Your task to perform on an android device: Turn off the flashlight Image 0: 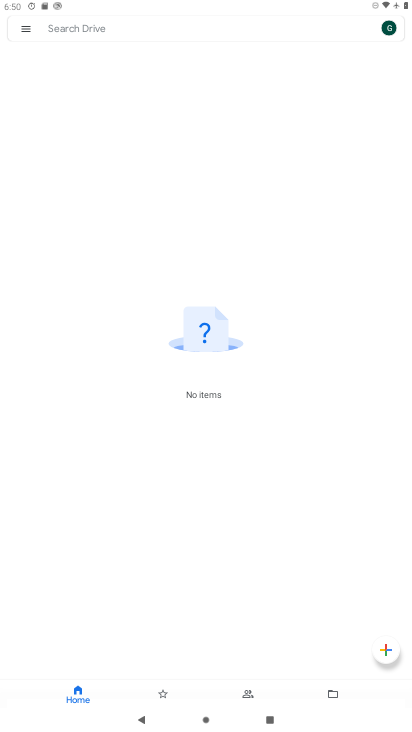
Step 0: press home button
Your task to perform on an android device: Turn off the flashlight Image 1: 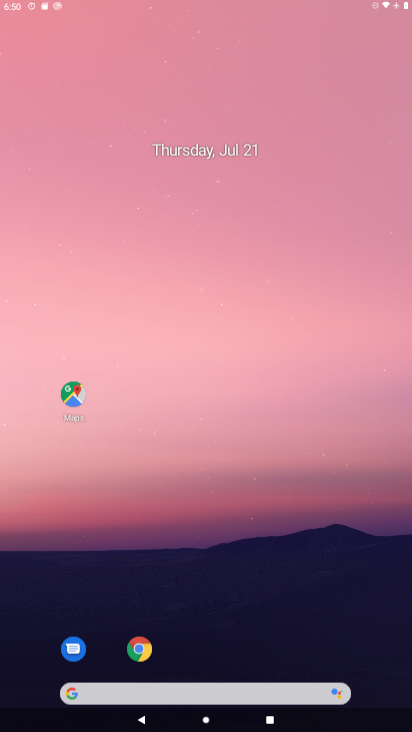
Step 1: drag from (391, 702) to (393, 434)
Your task to perform on an android device: Turn off the flashlight Image 2: 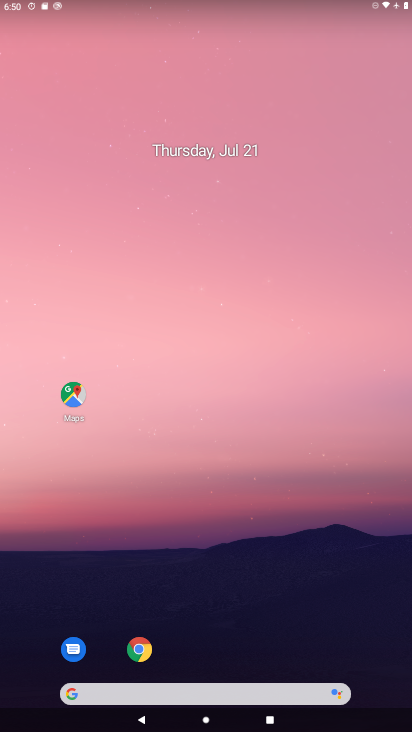
Step 2: click (202, 517)
Your task to perform on an android device: Turn off the flashlight Image 3: 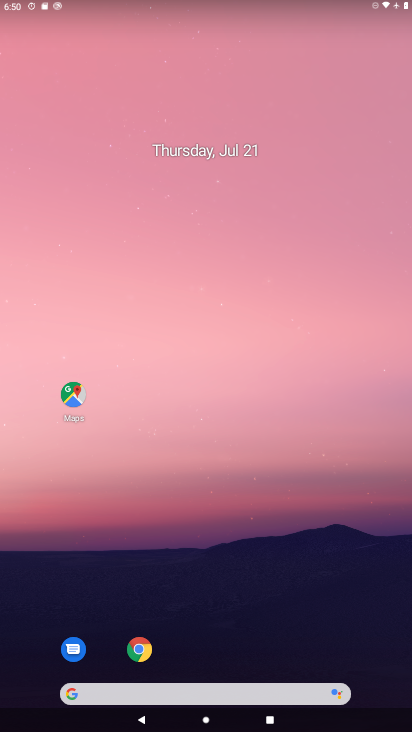
Step 3: drag from (350, 604) to (250, 9)
Your task to perform on an android device: Turn off the flashlight Image 4: 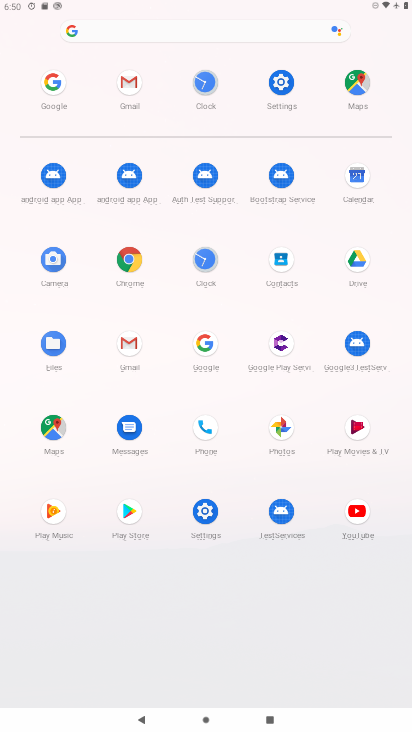
Step 4: click (208, 525)
Your task to perform on an android device: Turn off the flashlight Image 5: 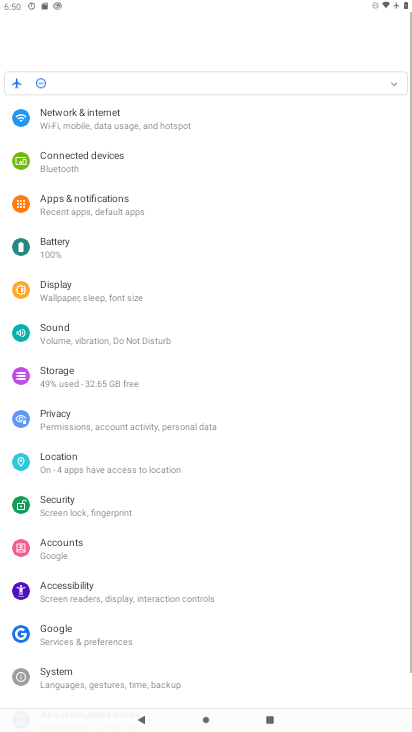
Step 5: task complete